Your task to perform on an android device: open app "Adobe Acrobat Reader" Image 0: 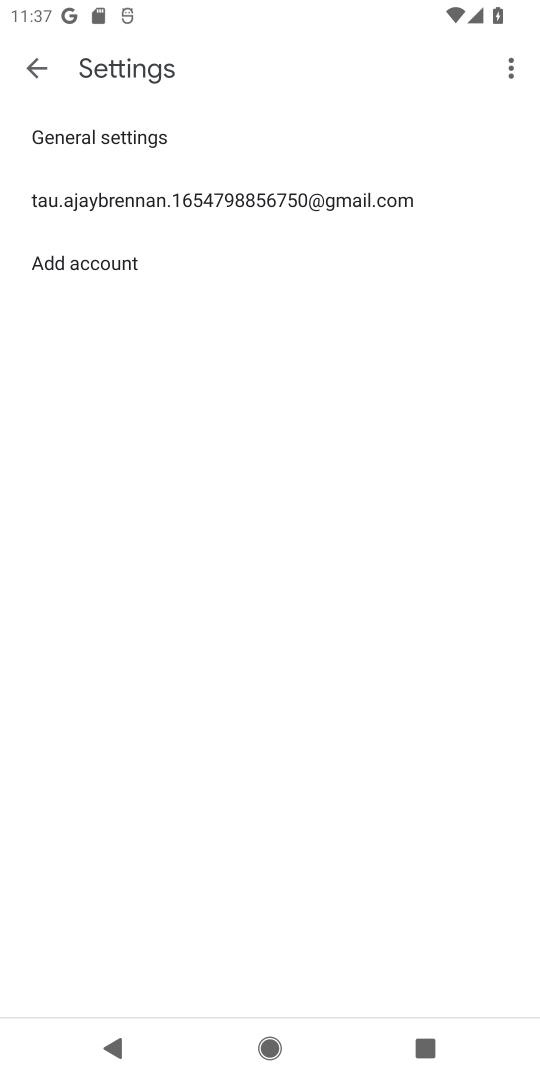
Step 0: press home button
Your task to perform on an android device: open app "Adobe Acrobat Reader" Image 1: 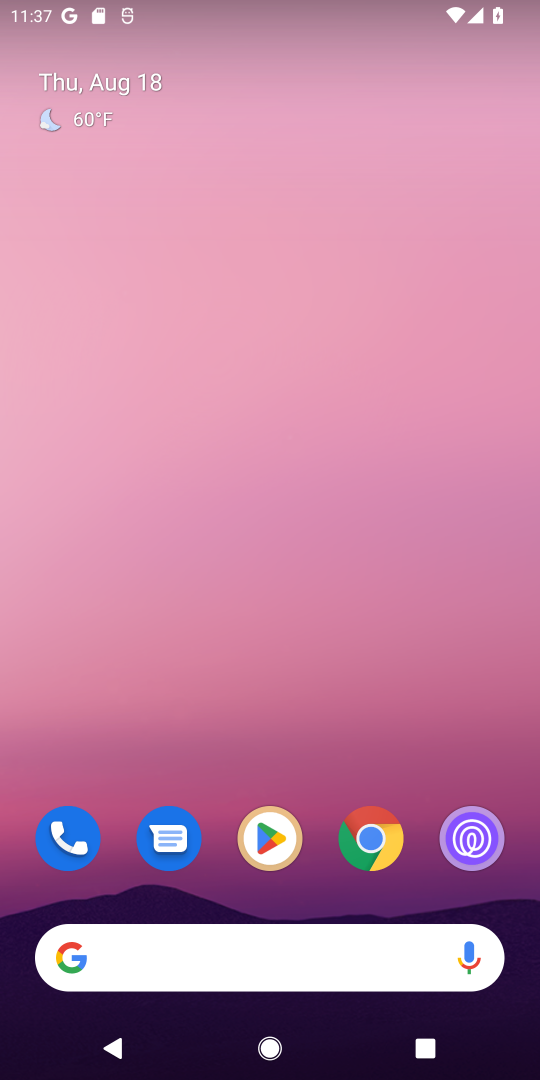
Step 1: click (264, 821)
Your task to perform on an android device: open app "Adobe Acrobat Reader" Image 2: 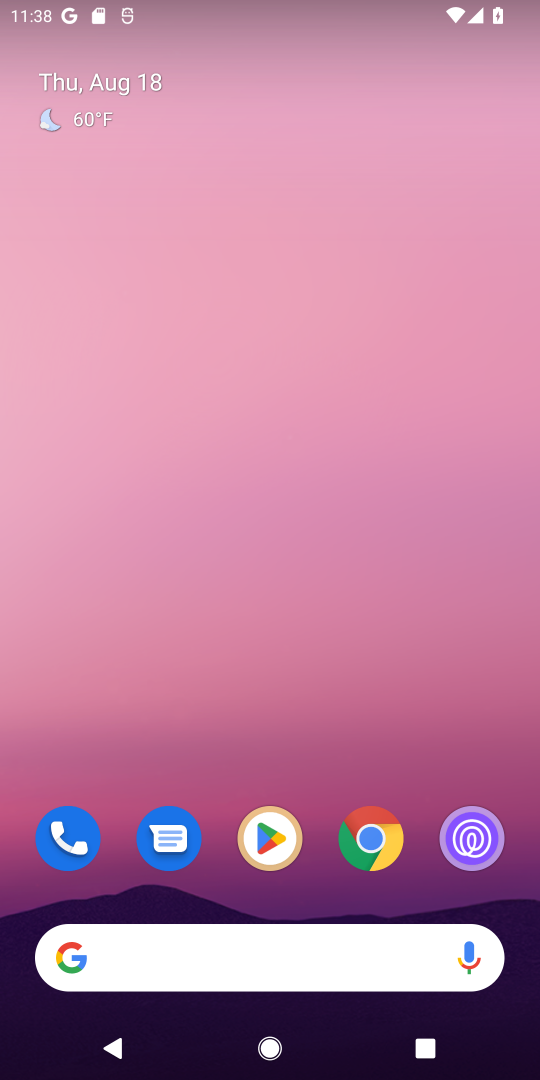
Step 2: click (262, 836)
Your task to perform on an android device: open app "Adobe Acrobat Reader" Image 3: 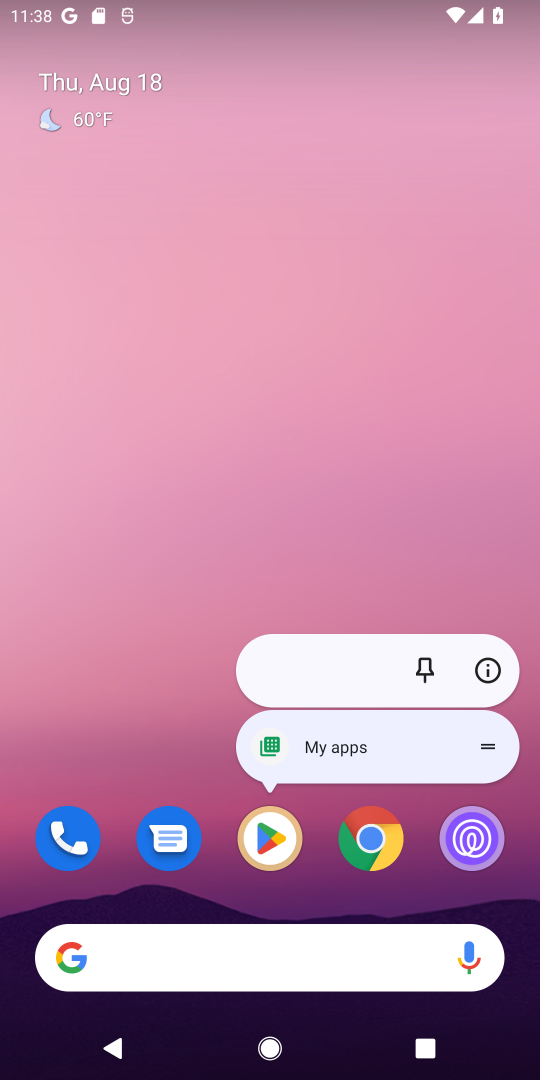
Step 3: click (262, 836)
Your task to perform on an android device: open app "Adobe Acrobat Reader" Image 4: 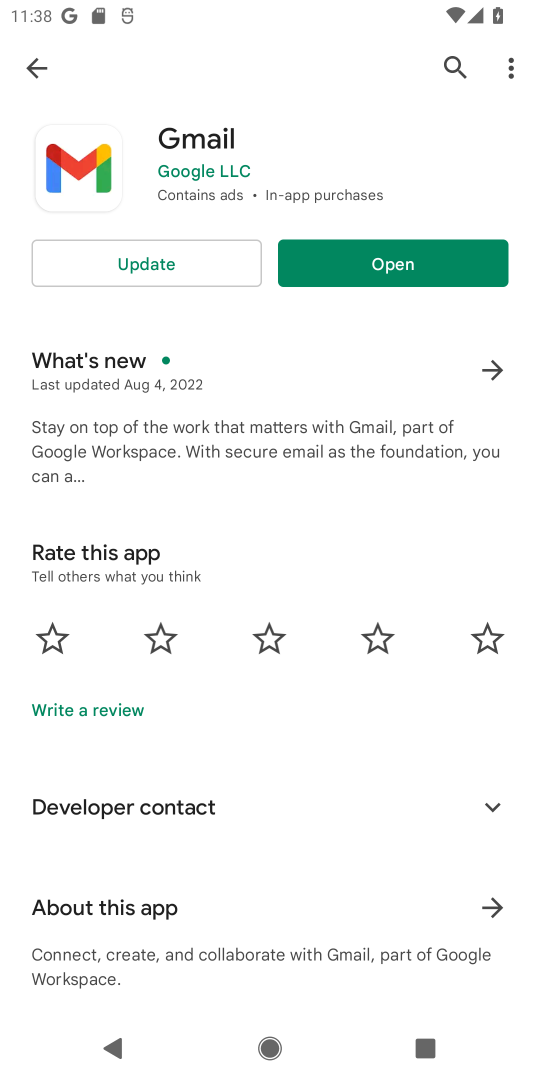
Step 4: click (459, 73)
Your task to perform on an android device: open app "Adobe Acrobat Reader" Image 5: 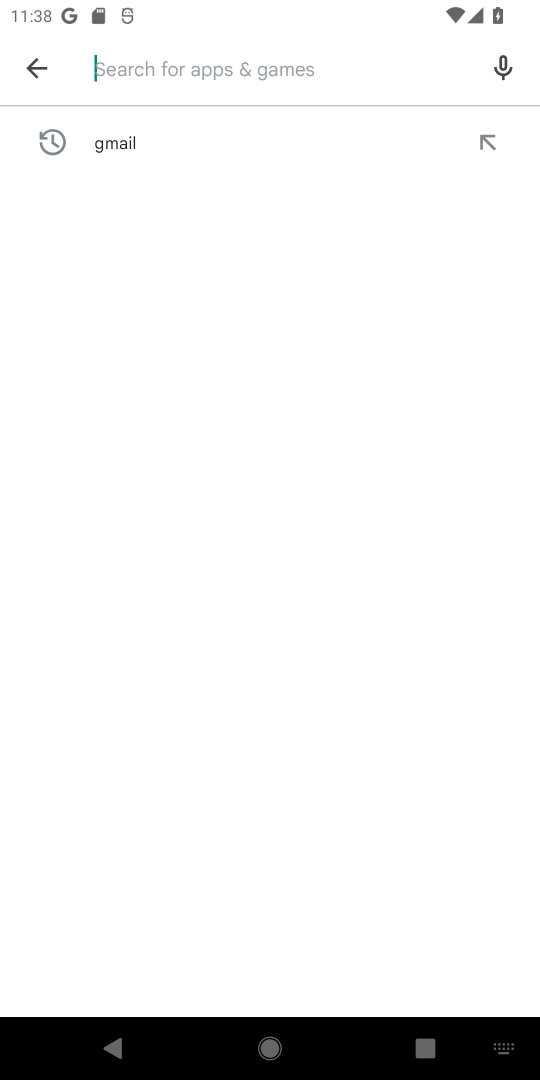
Step 5: type "Adobe Acrobat Reader"
Your task to perform on an android device: open app "Adobe Acrobat Reader" Image 6: 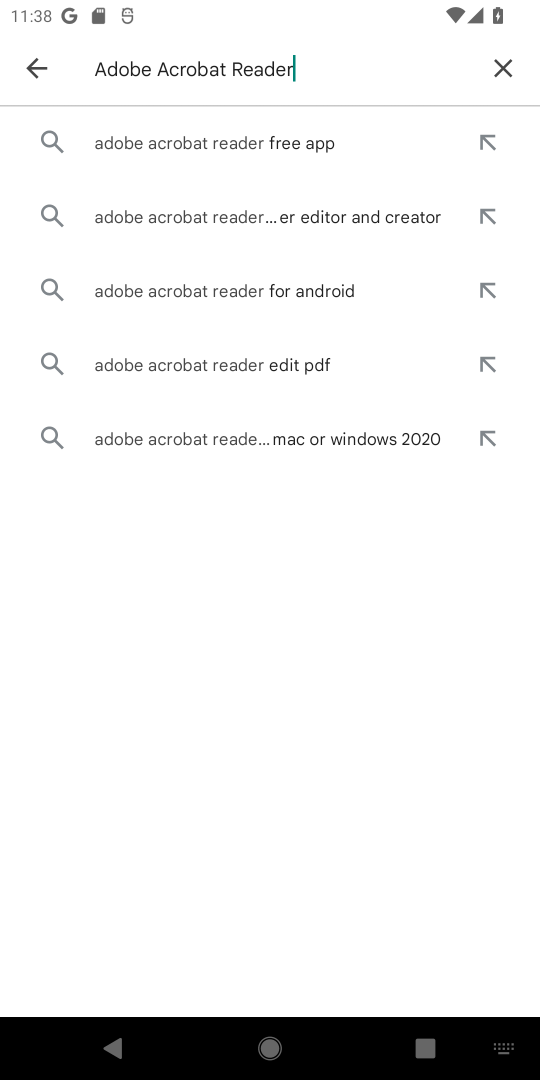
Step 6: click (223, 135)
Your task to perform on an android device: open app "Adobe Acrobat Reader" Image 7: 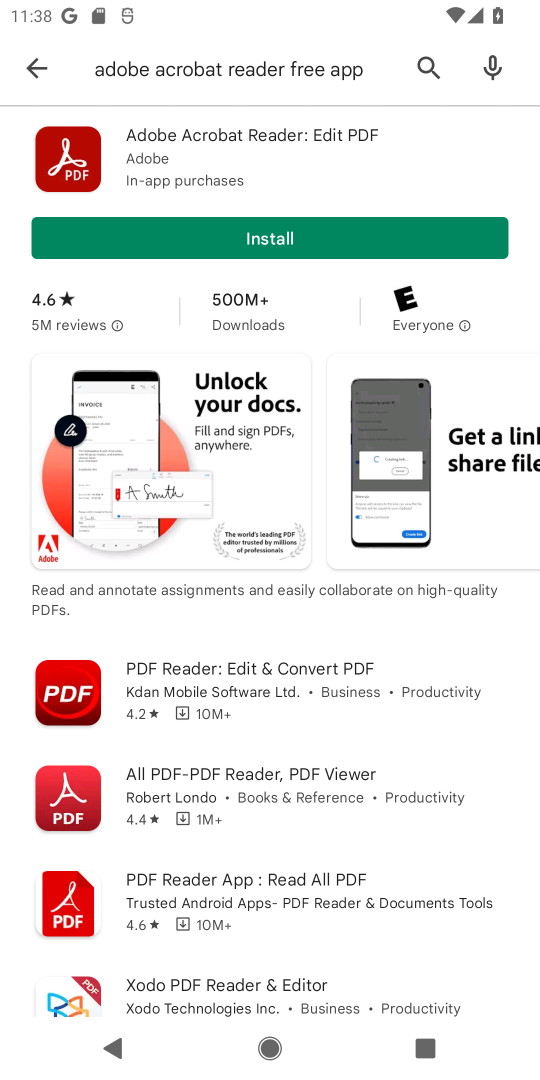
Step 7: click (322, 168)
Your task to perform on an android device: open app "Adobe Acrobat Reader" Image 8: 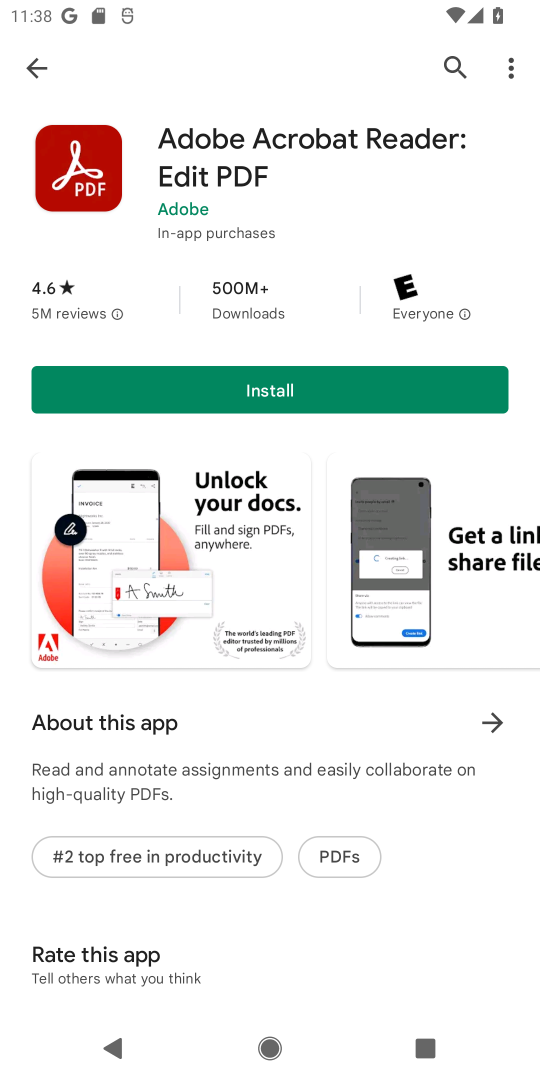
Step 8: task complete